Your task to perform on an android device: star an email in the gmail app Image 0: 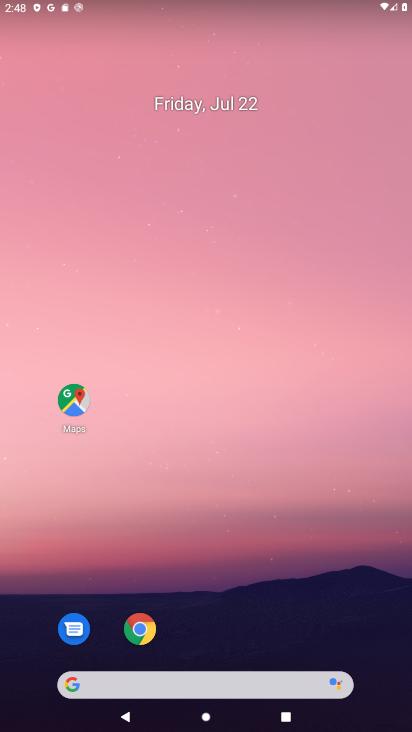
Step 0: drag from (235, 575) to (167, 131)
Your task to perform on an android device: star an email in the gmail app Image 1: 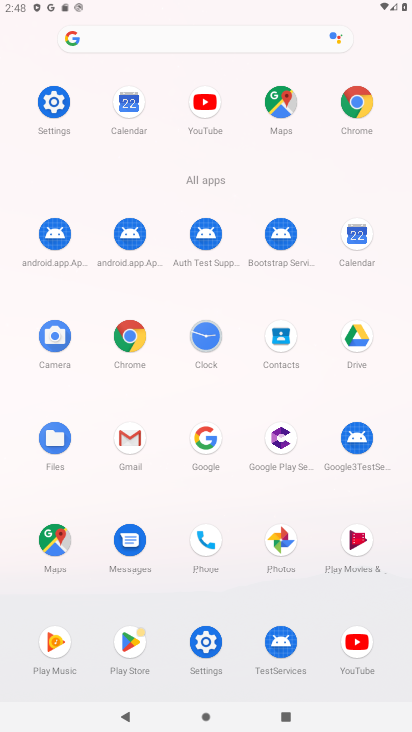
Step 1: click (130, 442)
Your task to perform on an android device: star an email in the gmail app Image 2: 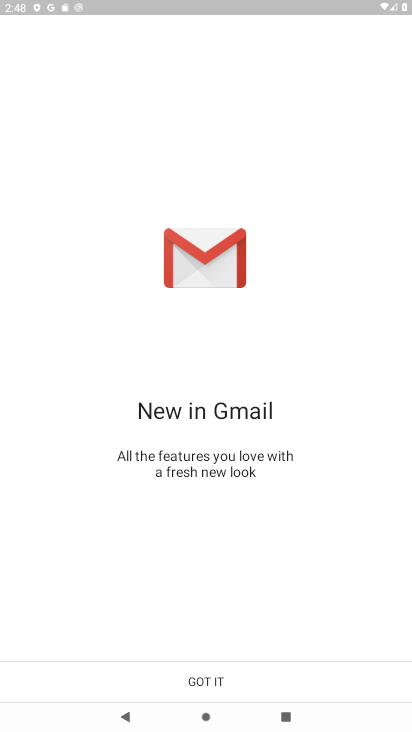
Step 2: click (202, 678)
Your task to perform on an android device: star an email in the gmail app Image 3: 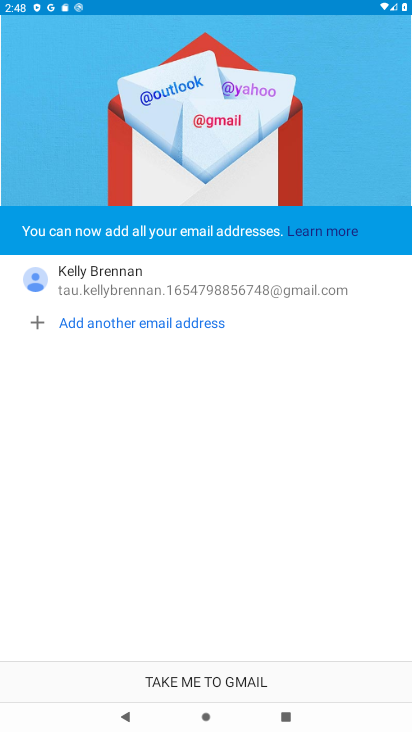
Step 3: click (218, 680)
Your task to perform on an android device: star an email in the gmail app Image 4: 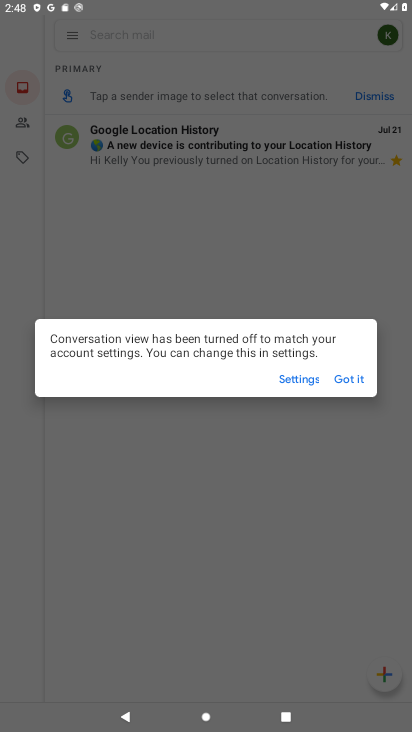
Step 4: click (347, 382)
Your task to perform on an android device: star an email in the gmail app Image 5: 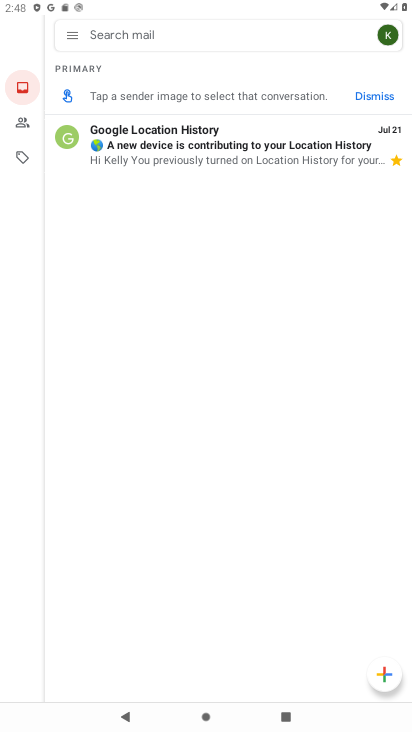
Step 5: click (67, 31)
Your task to perform on an android device: star an email in the gmail app Image 6: 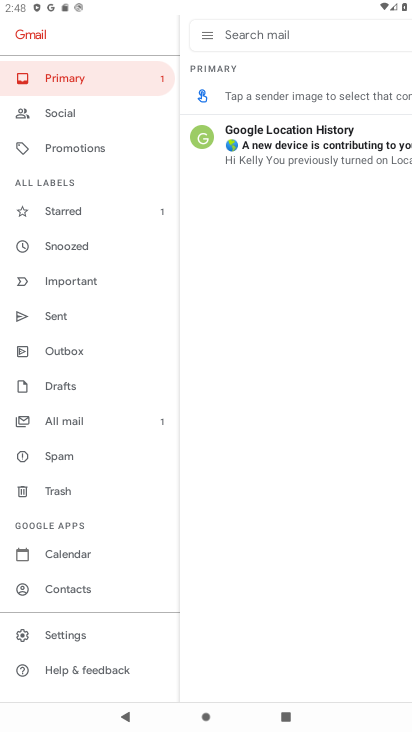
Step 6: click (56, 419)
Your task to perform on an android device: star an email in the gmail app Image 7: 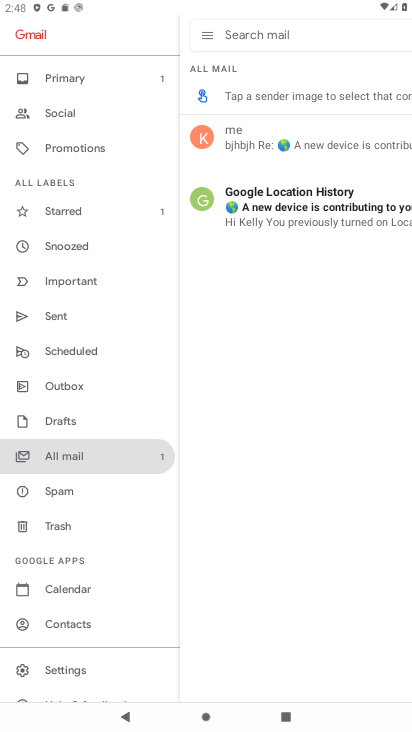
Step 7: task complete